Your task to perform on an android device: Search for jbl charge 4 on costco, select the first entry, add it to the cart, then select checkout. Image 0: 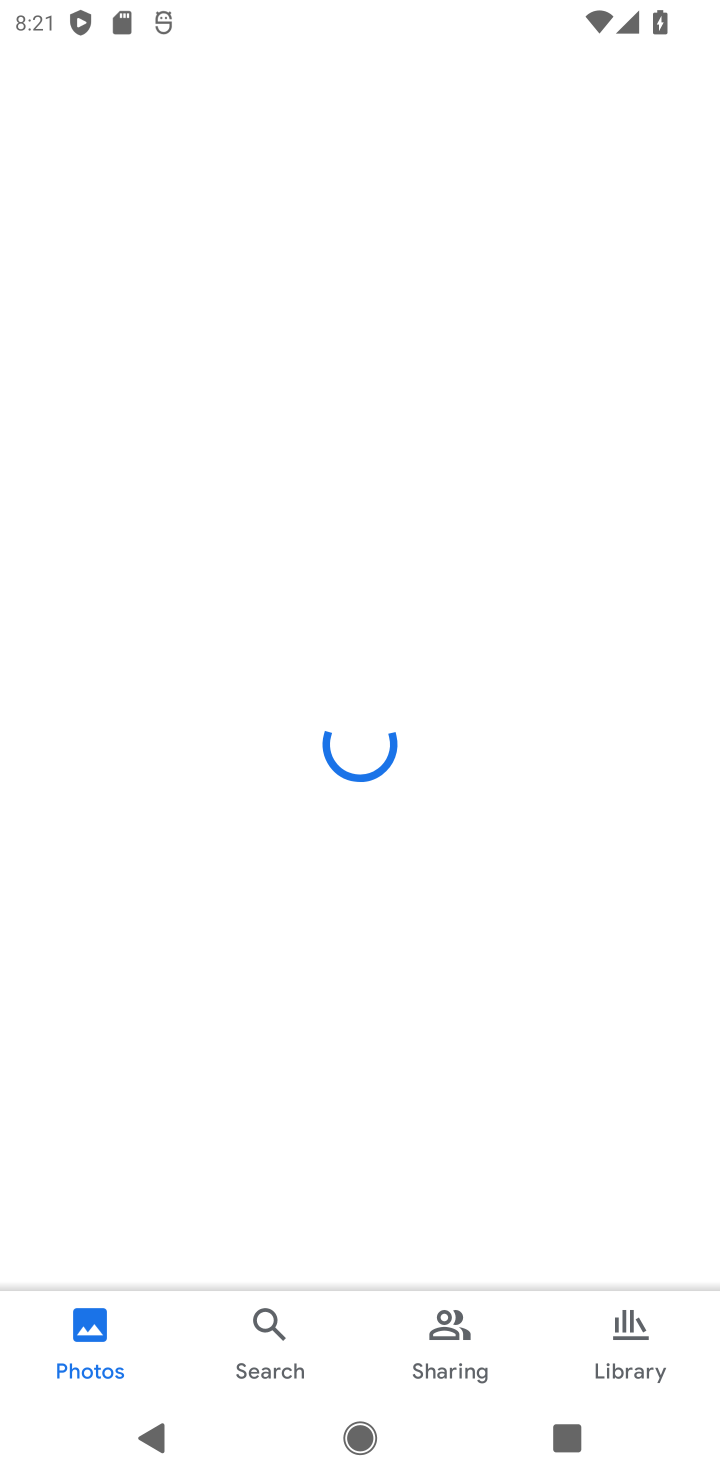
Step 0: press home button
Your task to perform on an android device: Search for jbl charge 4 on costco, select the first entry, add it to the cart, then select checkout. Image 1: 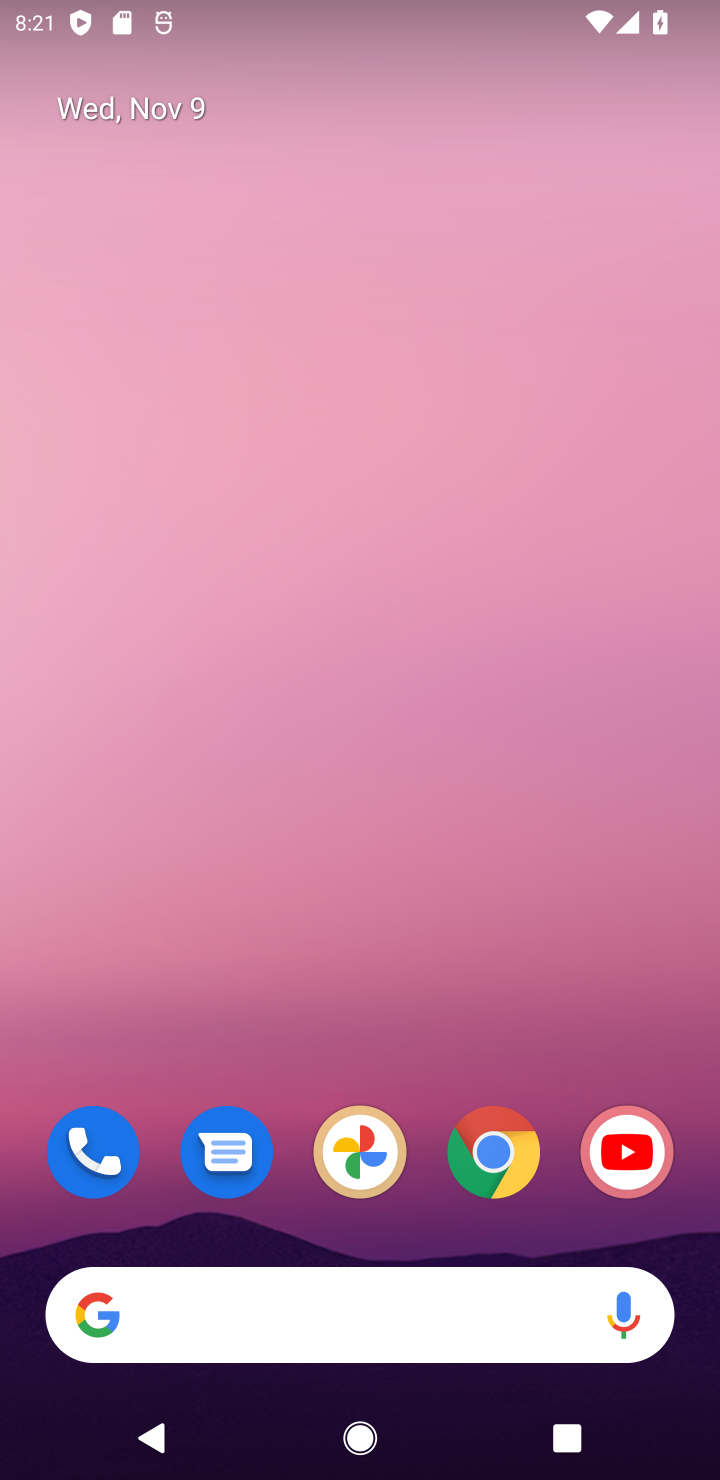
Step 1: click (497, 1153)
Your task to perform on an android device: Search for jbl charge 4 on costco, select the first entry, add it to the cart, then select checkout. Image 2: 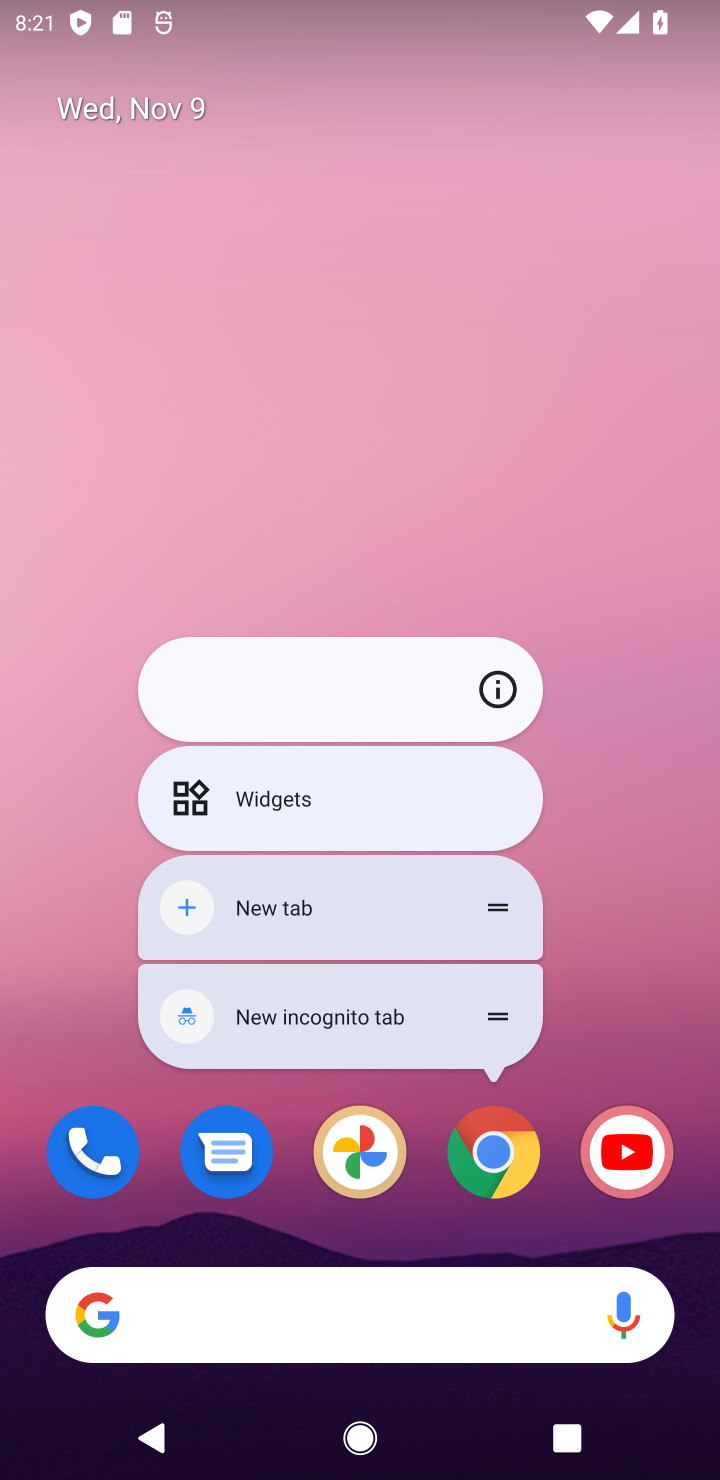
Step 2: click (497, 1153)
Your task to perform on an android device: Search for jbl charge 4 on costco, select the first entry, add it to the cart, then select checkout. Image 3: 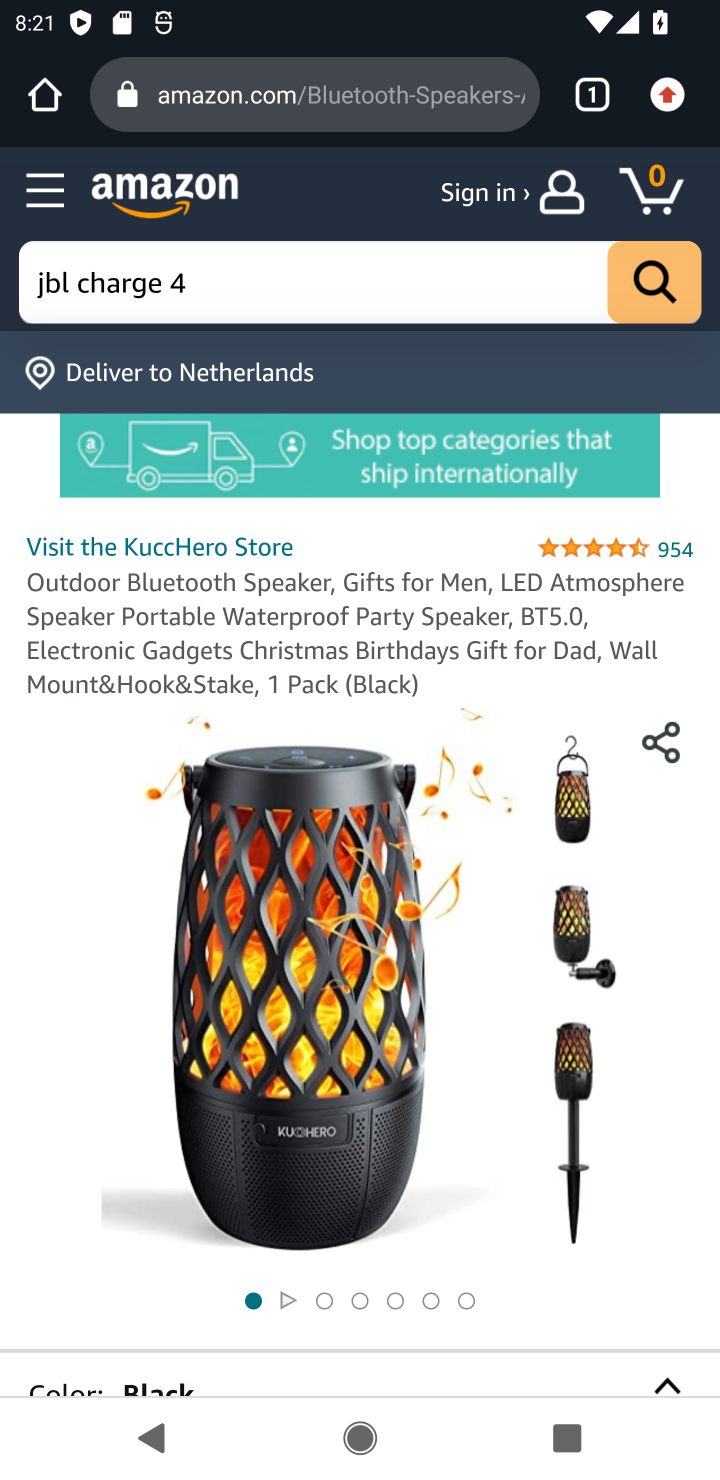
Step 3: click (376, 95)
Your task to perform on an android device: Search for jbl charge 4 on costco, select the first entry, add it to the cart, then select checkout. Image 4: 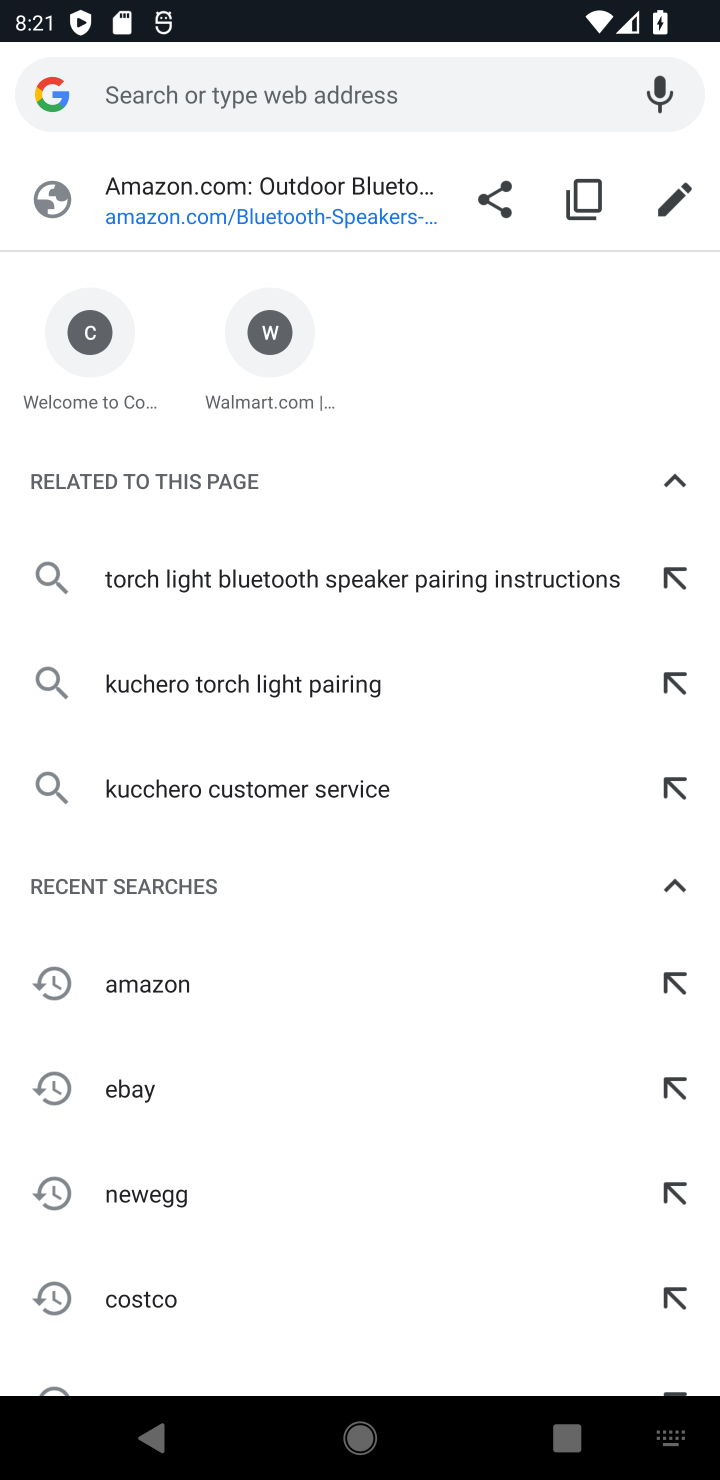
Step 4: click (129, 1297)
Your task to perform on an android device: Search for jbl charge 4 on costco, select the first entry, add it to the cart, then select checkout. Image 5: 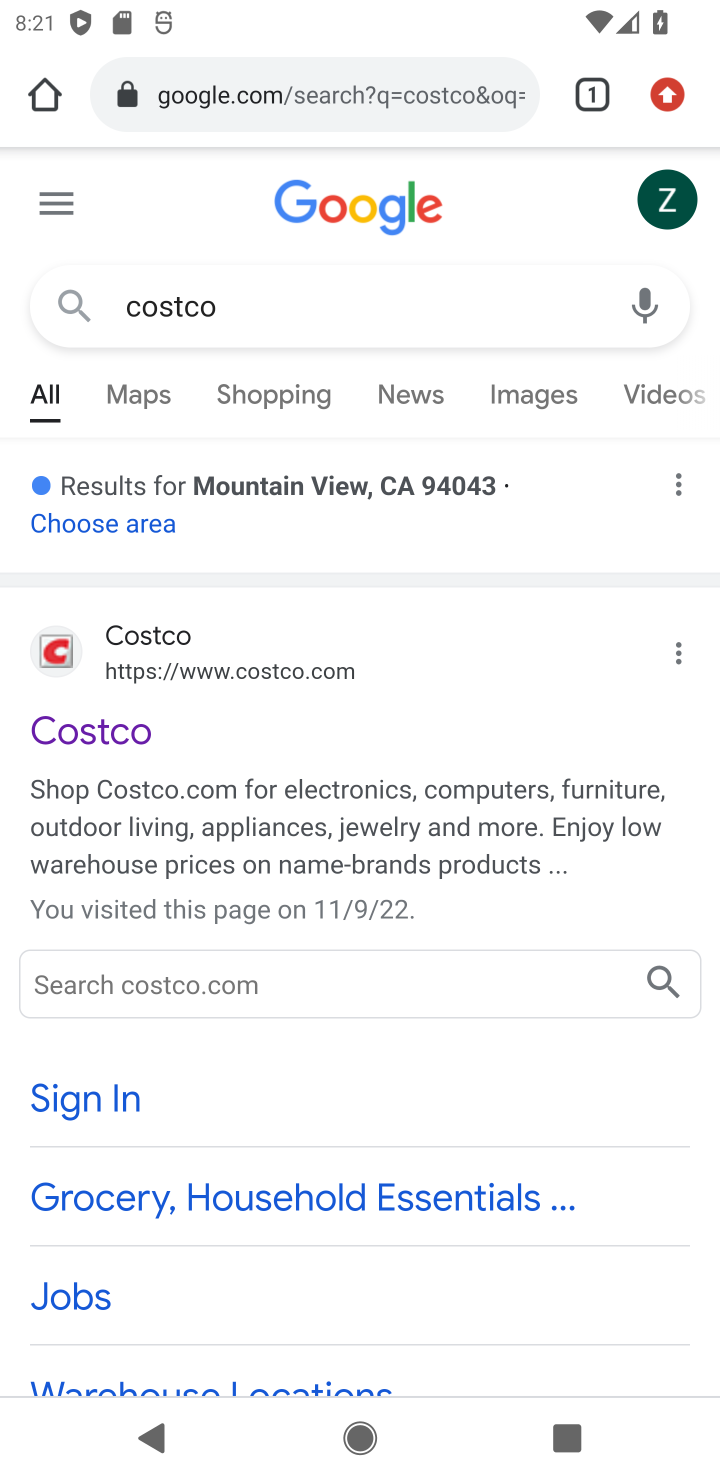
Step 5: click (76, 731)
Your task to perform on an android device: Search for jbl charge 4 on costco, select the first entry, add it to the cart, then select checkout. Image 6: 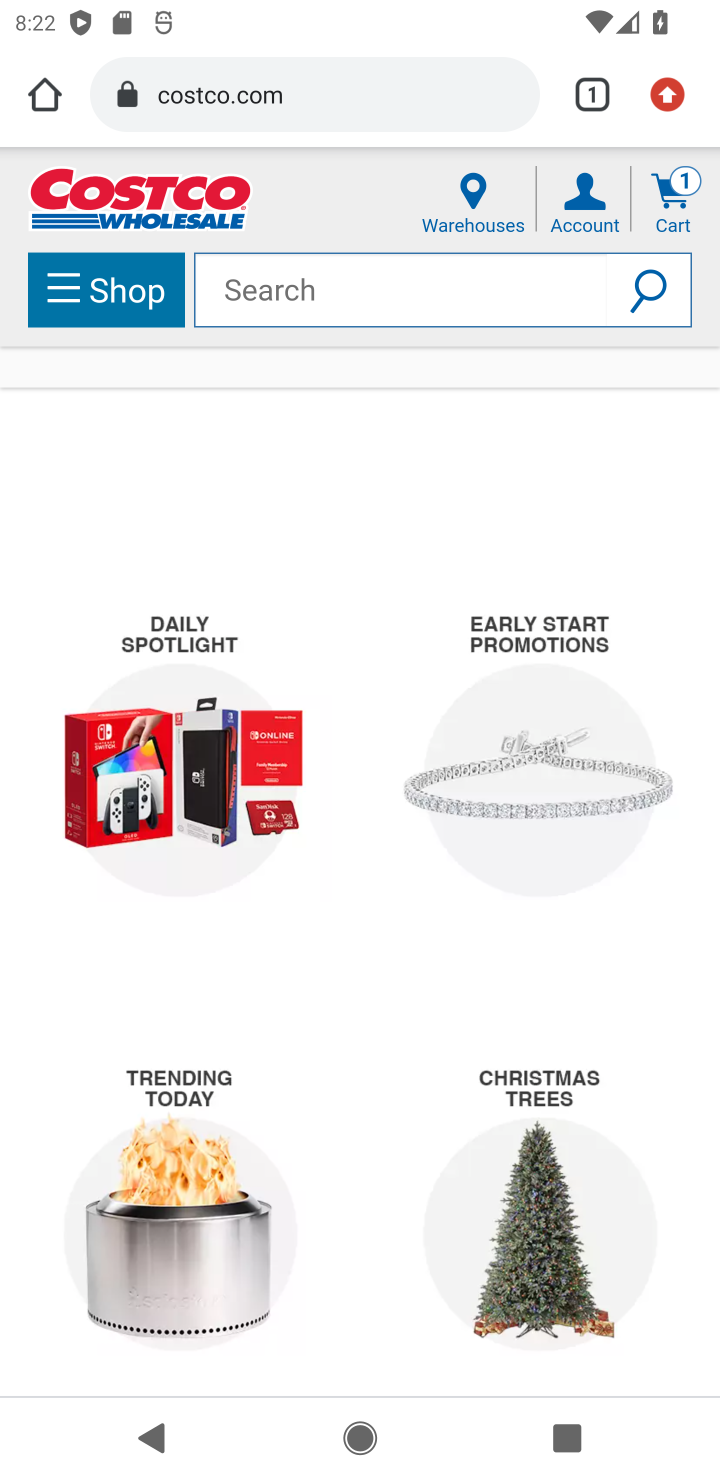
Step 6: click (330, 292)
Your task to perform on an android device: Search for jbl charge 4 on costco, select the first entry, add it to the cart, then select checkout. Image 7: 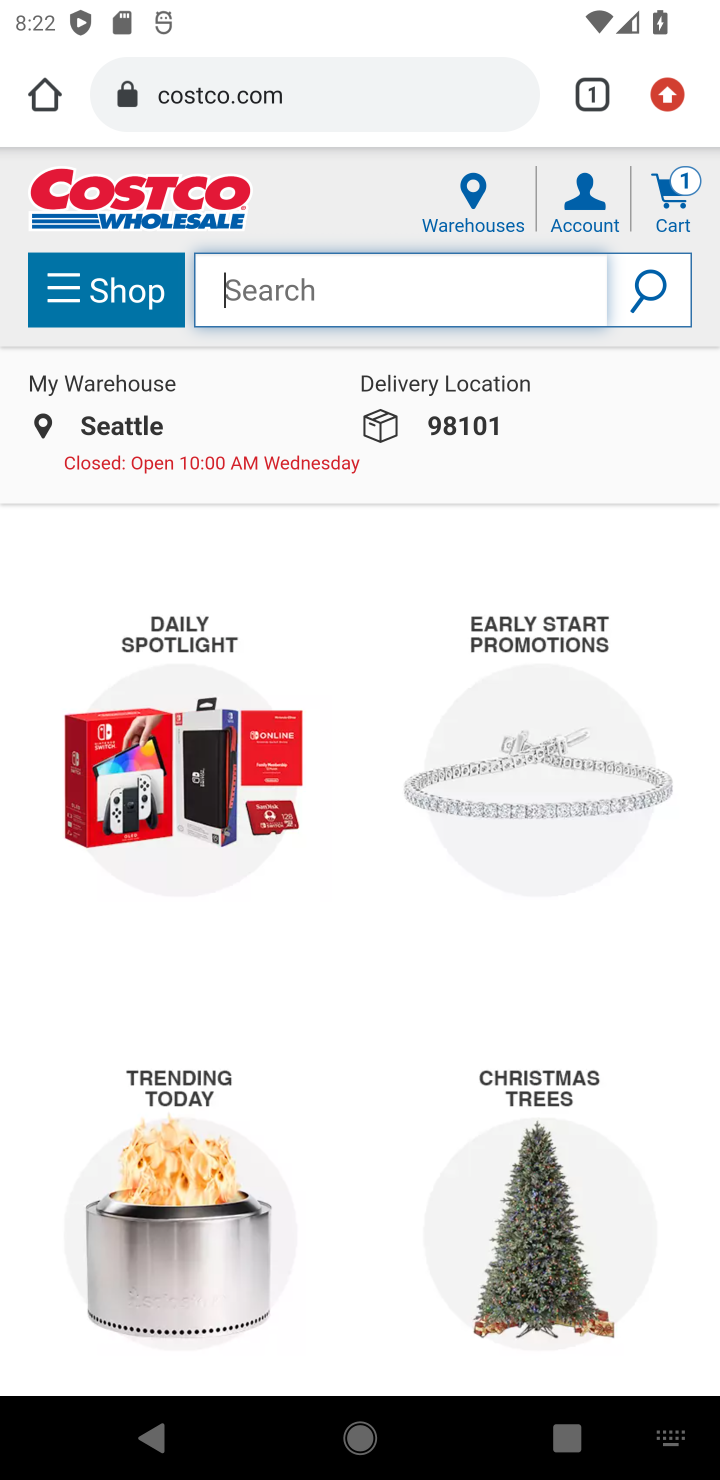
Step 7: type " jbl charge 4"
Your task to perform on an android device: Search for jbl charge 4 on costco, select the first entry, add it to the cart, then select checkout. Image 8: 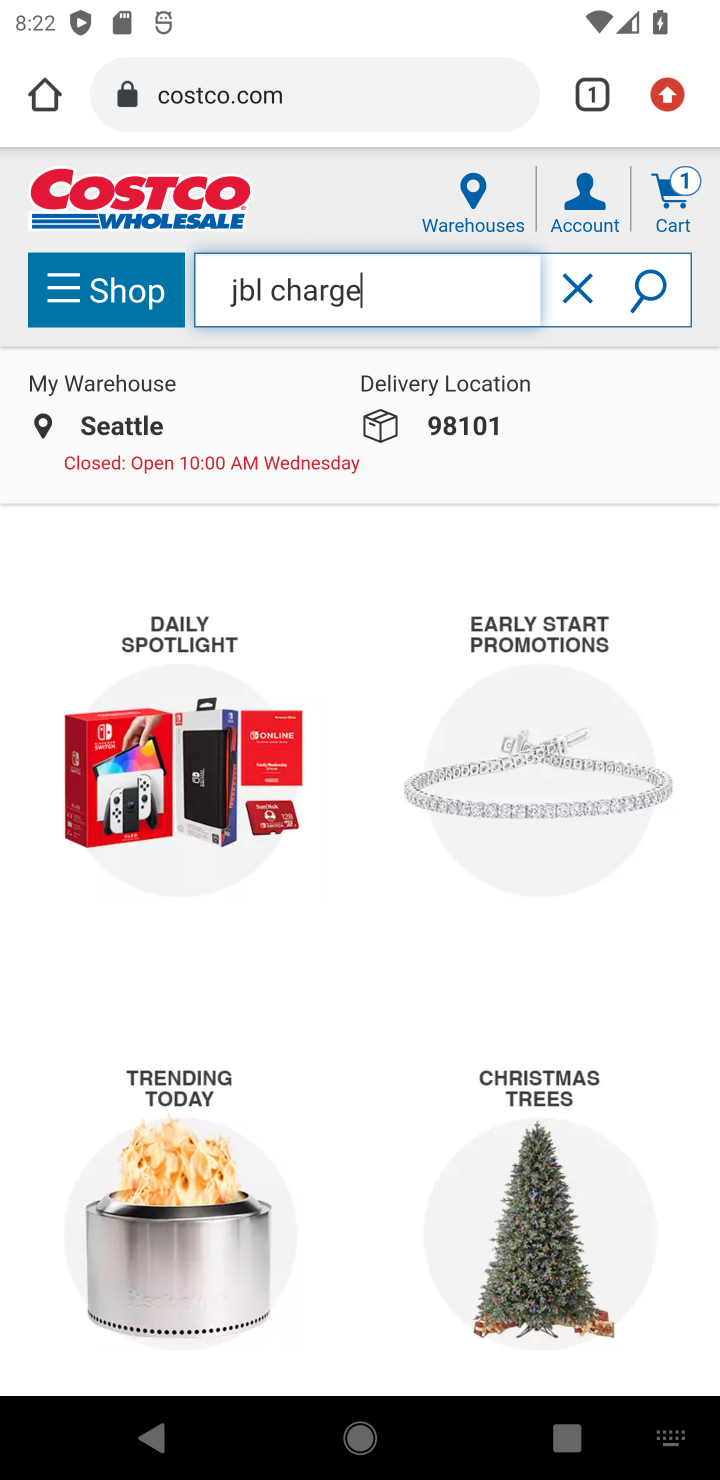
Step 8: press enter
Your task to perform on an android device: Search for jbl charge 4 on costco, select the first entry, add it to the cart, then select checkout. Image 9: 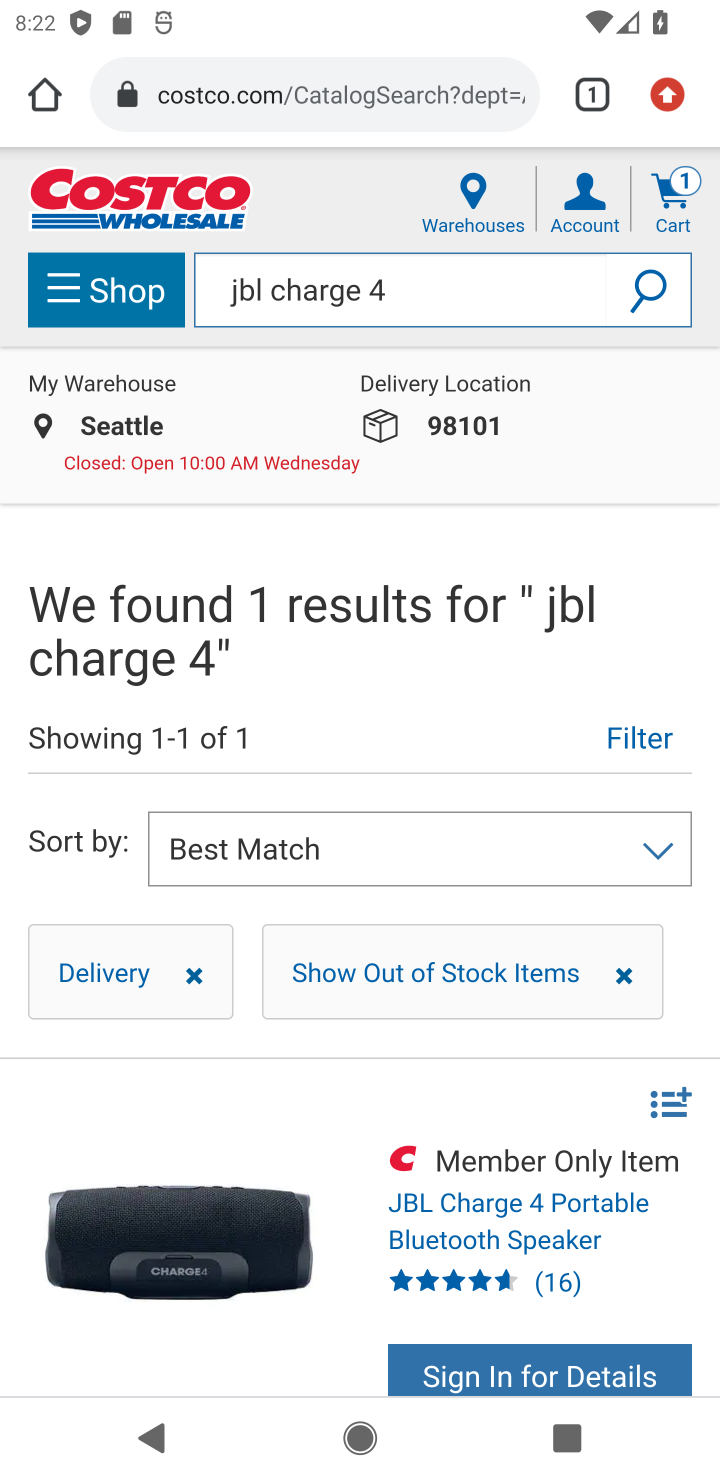
Step 9: drag from (257, 1130) to (417, 626)
Your task to perform on an android device: Search for jbl charge 4 on costco, select the first entry, add it to the cart, then select checkout. Image 10: 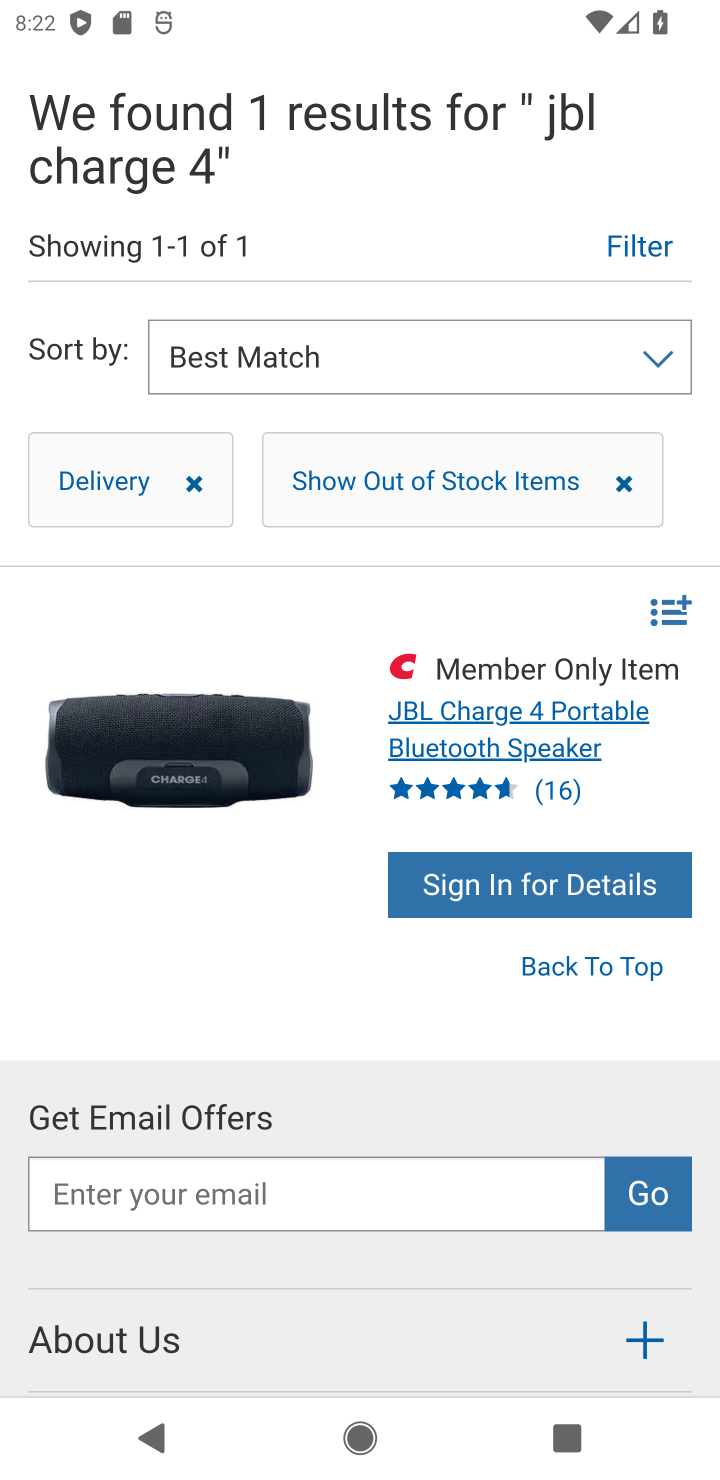
Step 10: click (473, 711)
Your task to perform on an android device: Search for jbl charge 4 on costco, select the first entry, add it to the cart, then select checkout. Image 11: 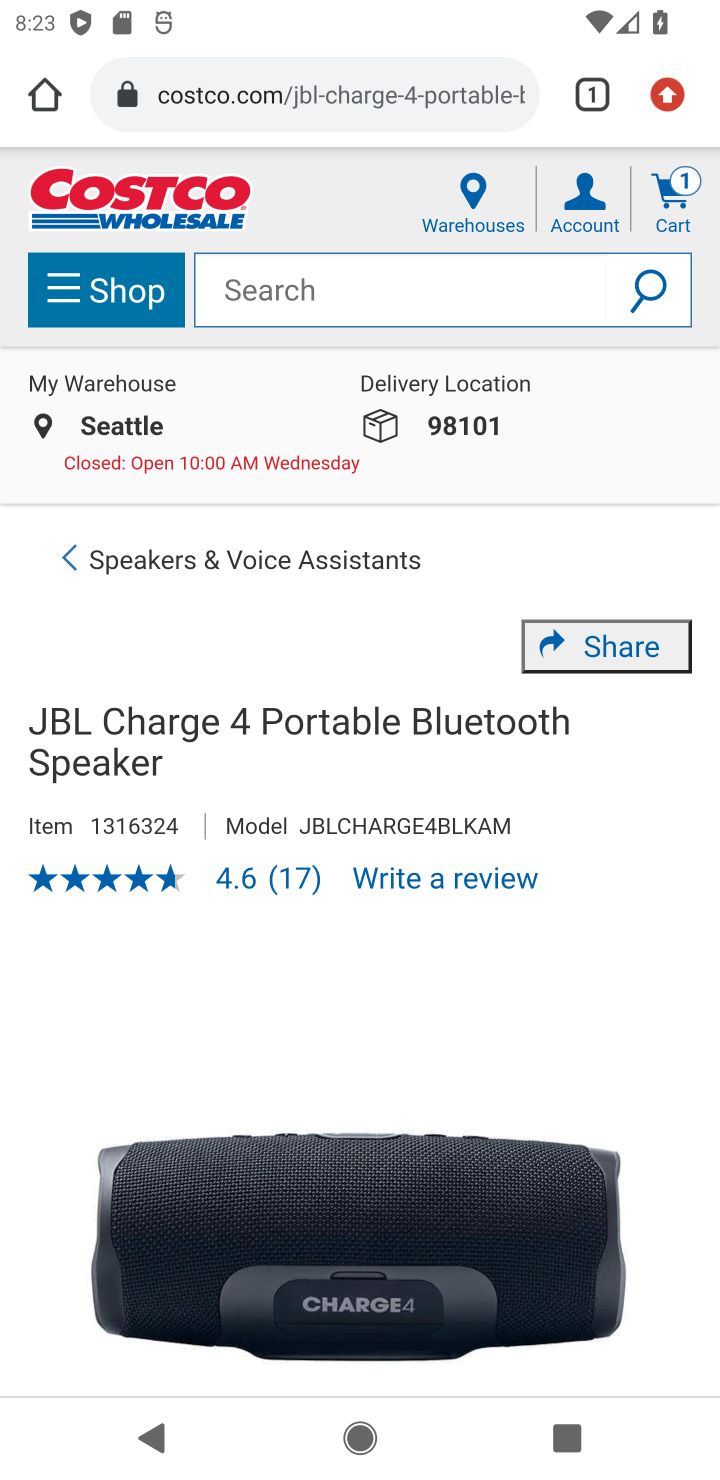
Step 11: task complete